Your task to perform on an android device: Add "apple airpods pro" to the cart on costco Image 0: 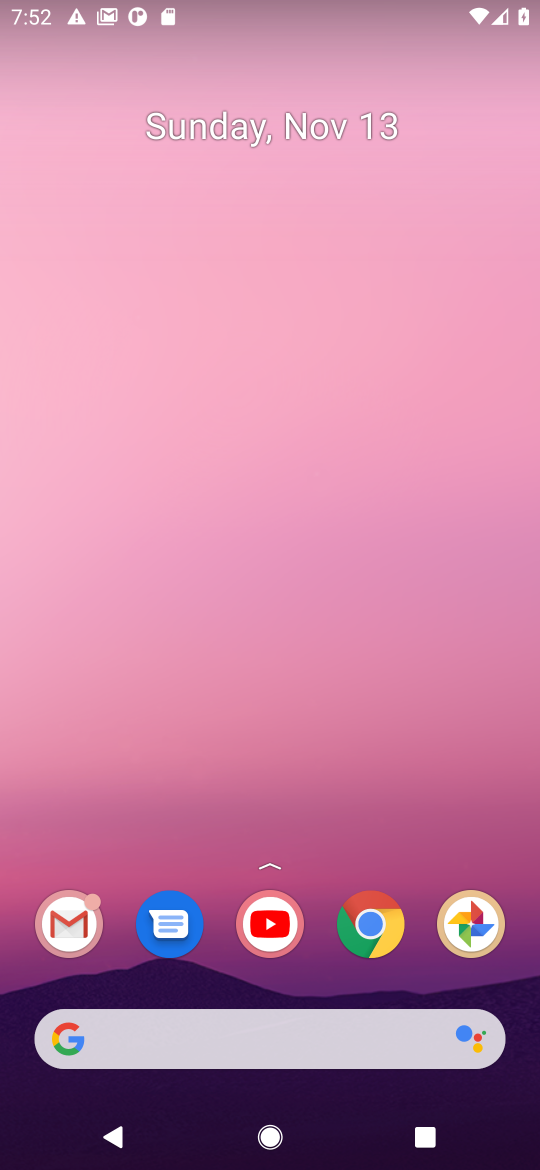
Step 0: click (384, 943)
Your task to perform on an android device: Add "apple airpods pro" to the cart on costco Image 1: 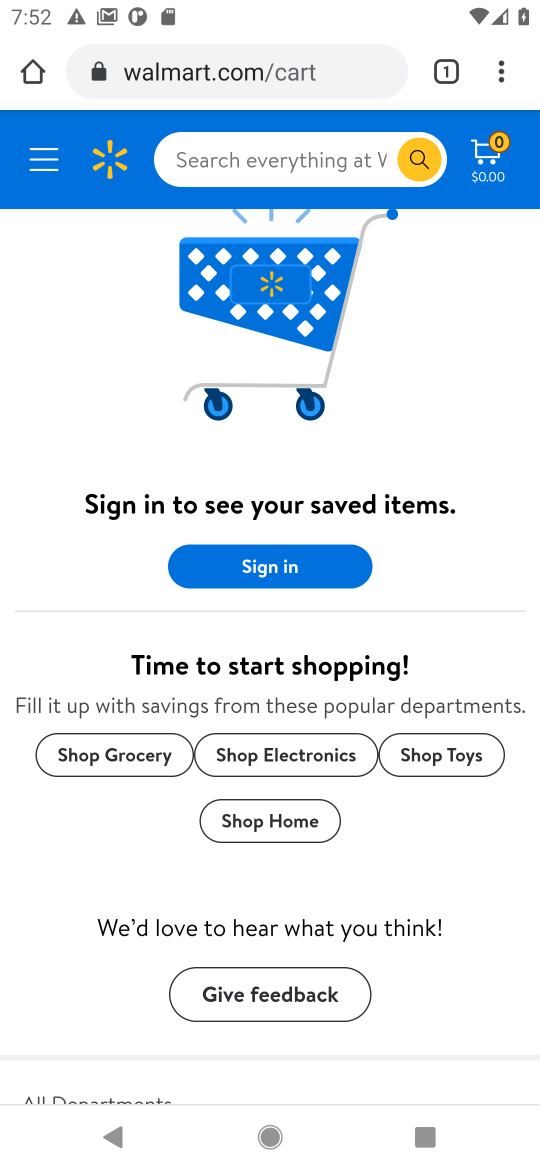
Step 1: click (288, 73)
Your task to perform on an android device: Add "apple airpods pro" to the cart on costco Image 2: 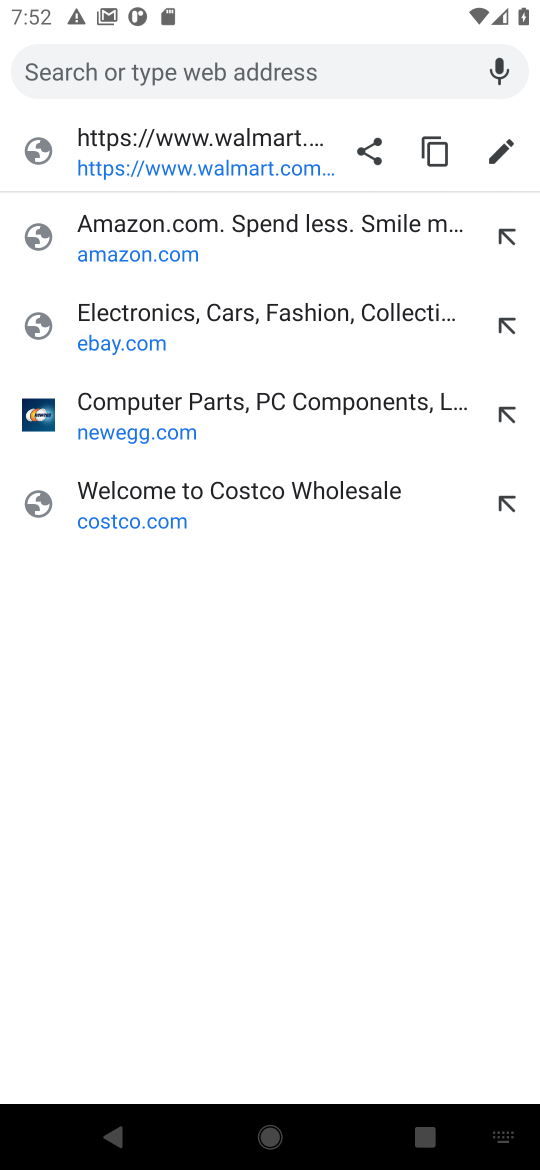
Step 2: click (128, 522)
Your task to perform on an android device: Add "apple airpods pro" to the cart on costco Image 3: 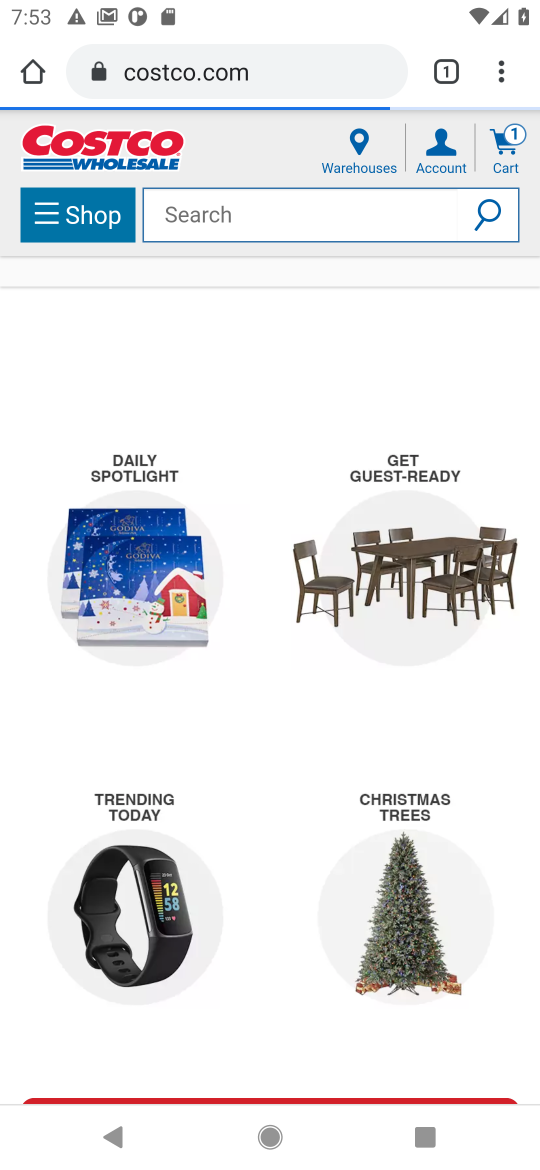
Step 3: click (236, 217)
Your task to perform on an android device: Add "apple airpods pro" to the cart on costco Image 4: 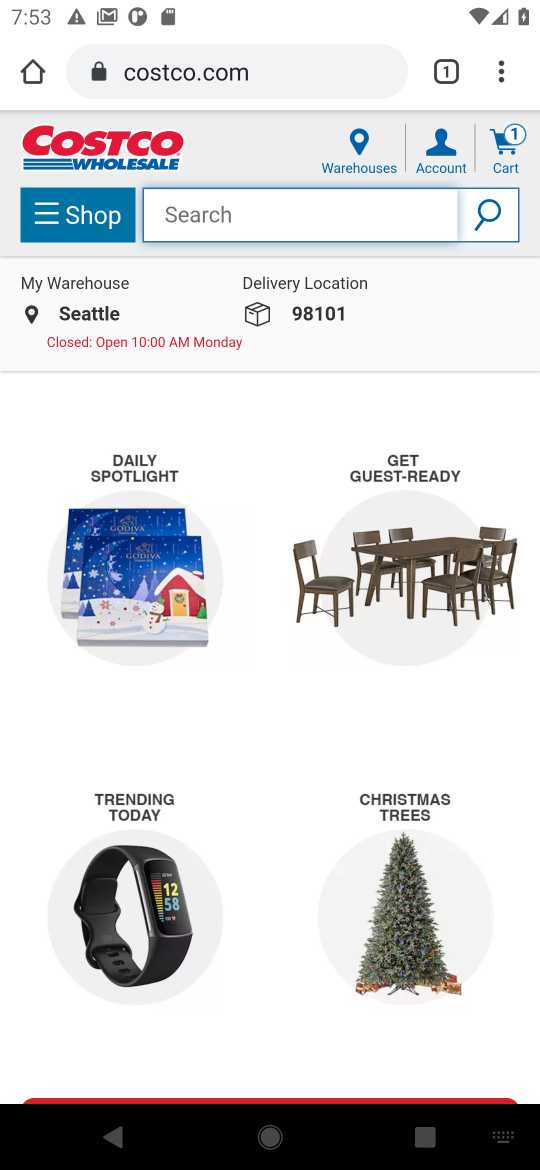
Step 4: type "apple airpods pro"
Your task to perform on an android device: Add "apple airpods pro" to the cart on costco Image 5: 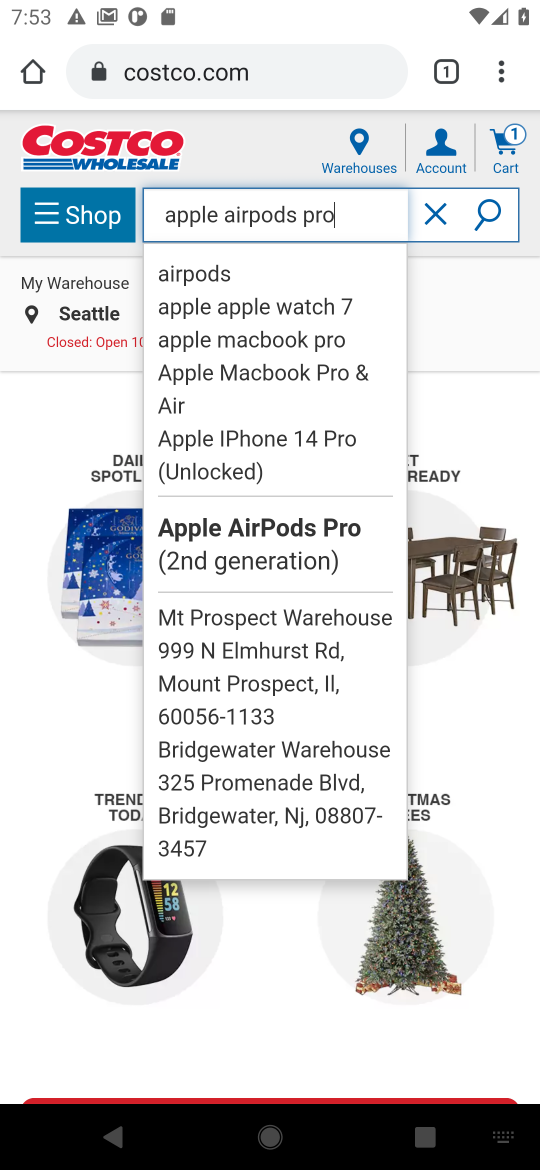
Step 5: click (493, 215)
Your task to perform on an android device: Add "apple airpods pro" to the cart on costco Image 6: 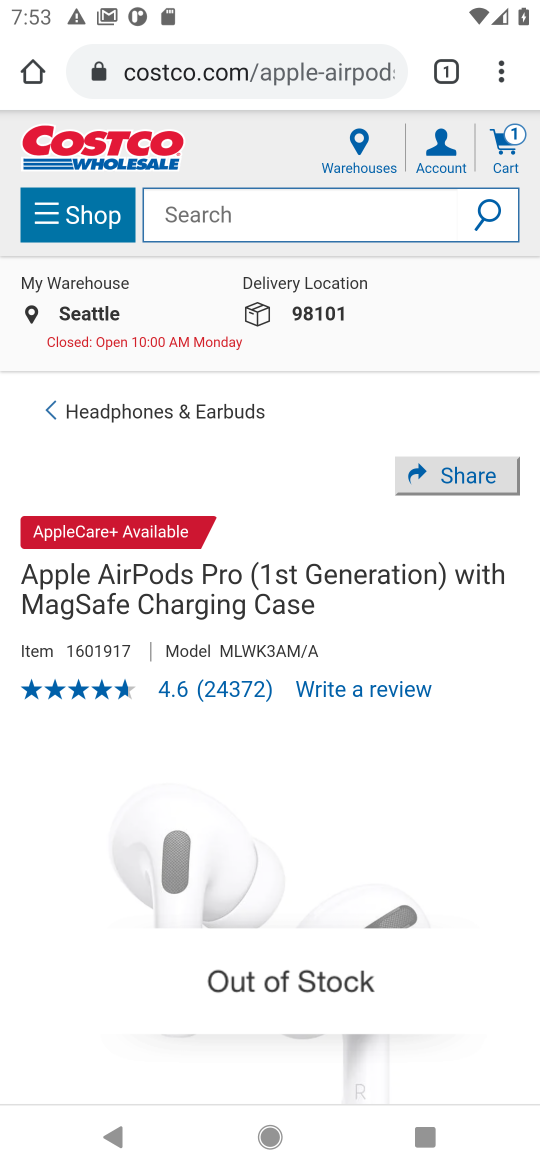
Step 6: drag from (73, 994) to (121, 639)
Your task to perform on an android device: Add "apple airpods pro" to the cart on costco Image 7: 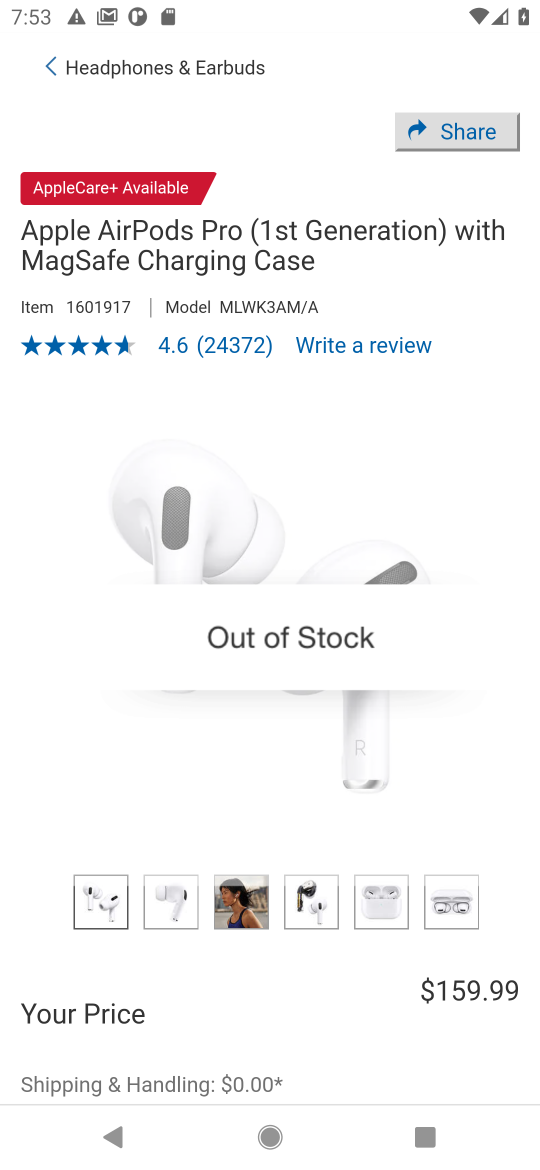
Step 7: drag from (263, 1033) to (376, 360)
Your task to perform on an android device: Add "apple airpods pro" to the cart on costco Image 8: 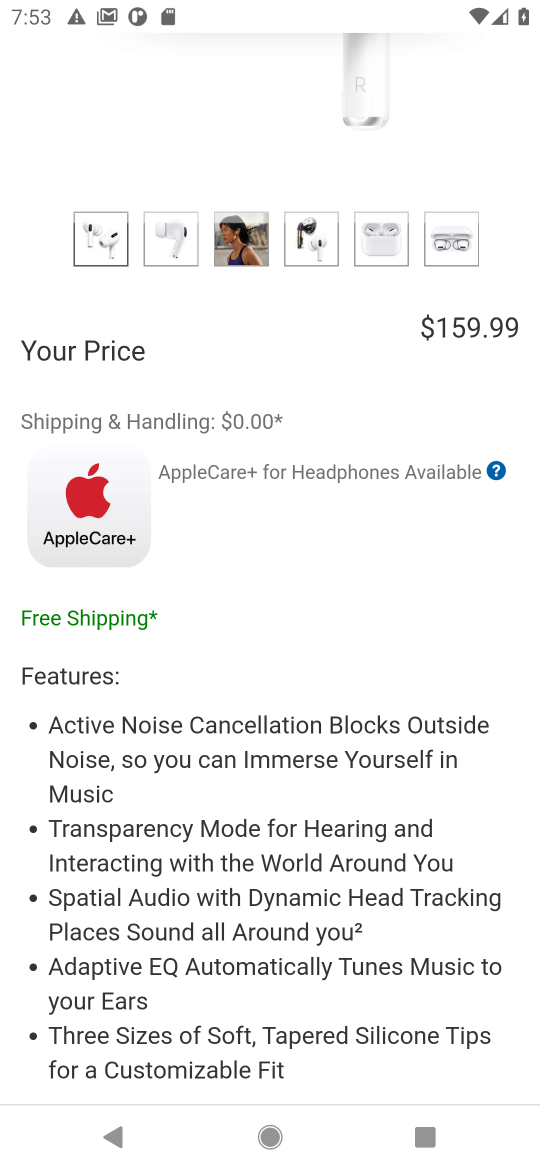
Step 8: drag from (316, 877) to (376, 372)
Your task to perform on an android device: Add "apple airpods pro" to the cart on costco Image 9: 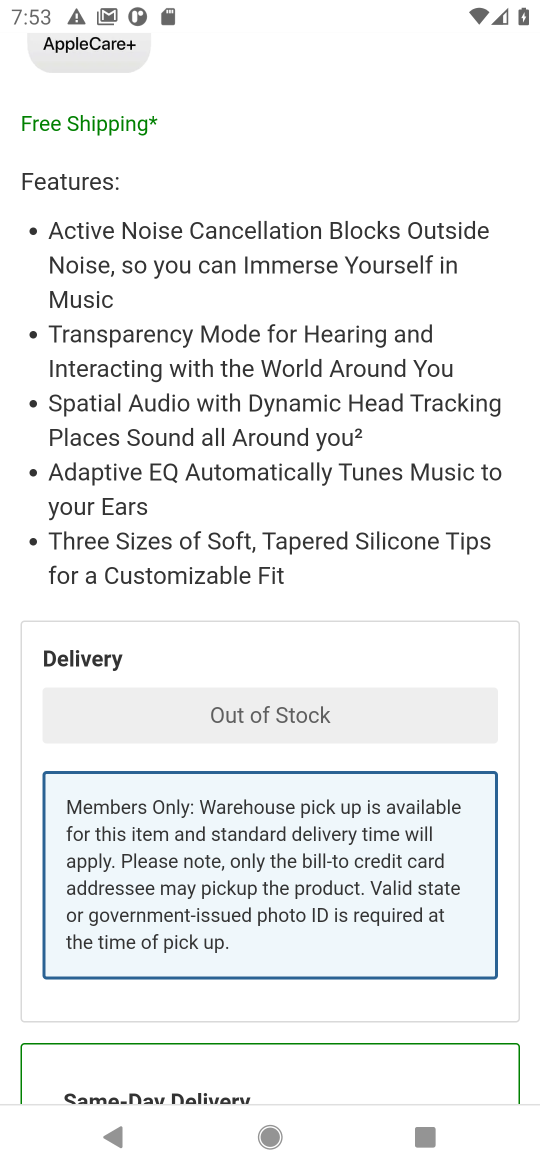
Step 9: drag from (452, 820) to (475, 344)
Your task to perform on an android device: Add "apple airpods pro" to the cart on costco Image 10: 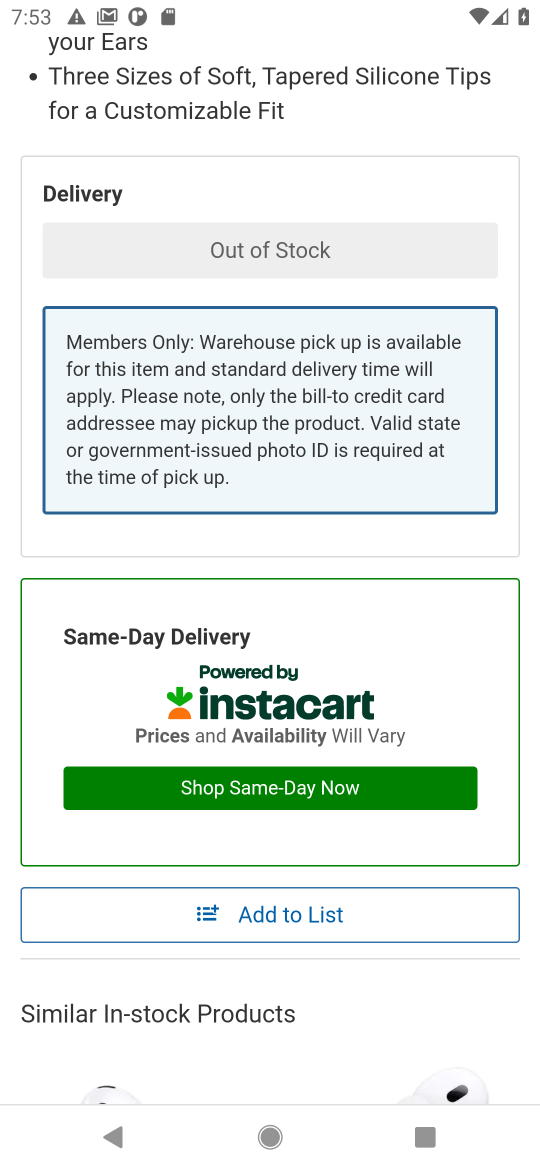
Step 10: drag from (388, 1008) to (474, 564)
Your task to perform on an android device: Add "apple airpods pro" to the cart on costco Image 11: 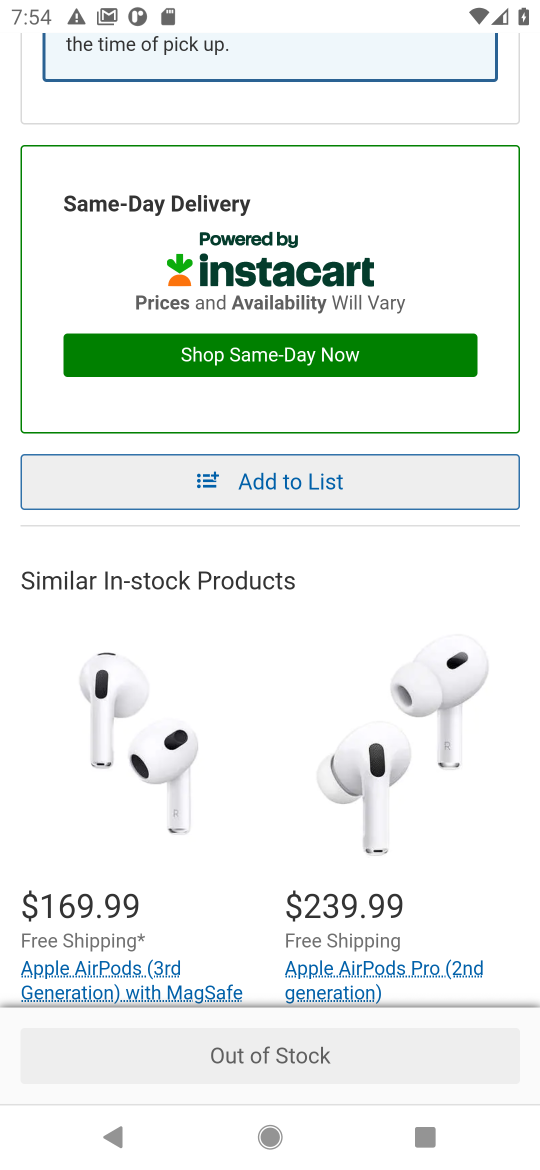
Step 11: drag from (234, 914) to (272, 665)
Your task to perform on an android device: Add "apple airpods pro" to the cart on costco Image 12: 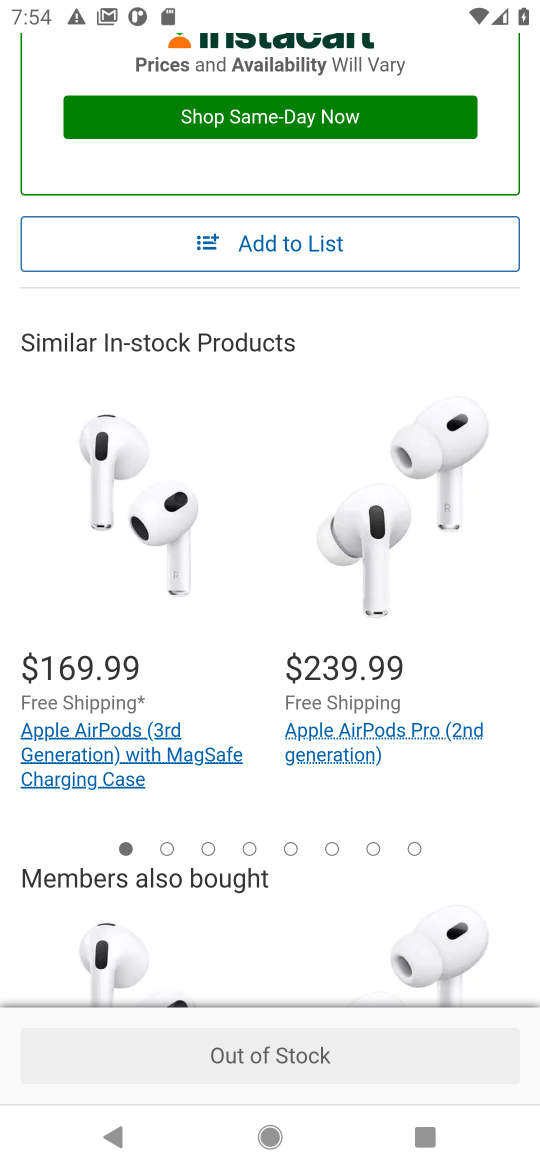
Step 12: click (375, 695)
Your task to perform on an android device: Add "apple airpods pro" to the cart on costco Image 13: 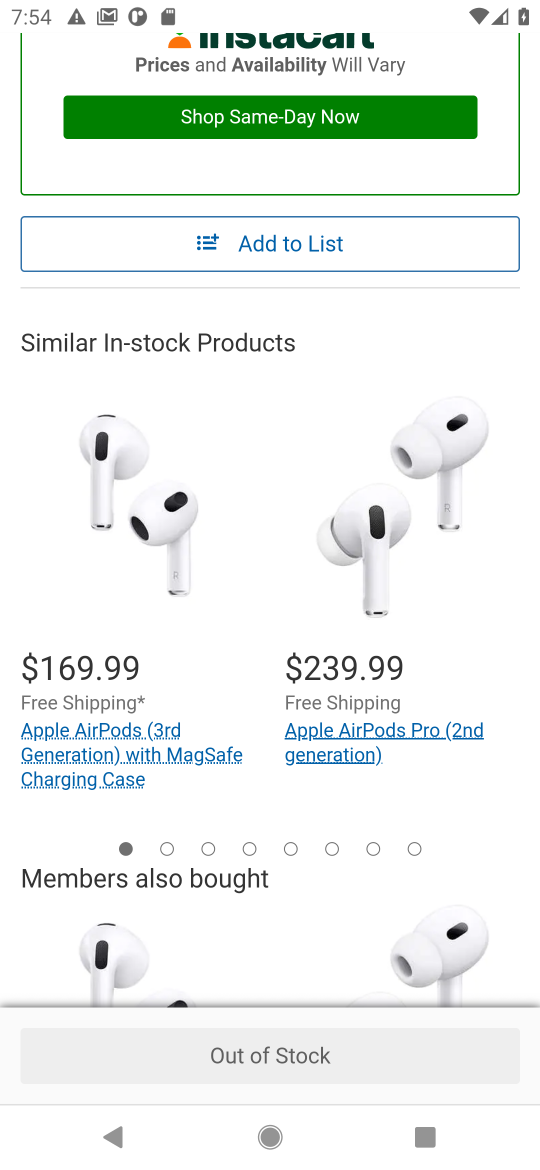
Step 13: click (372, 708)
Your task to perform on an android device: Add "apple airpods pro" to the cart on costco Image 14: 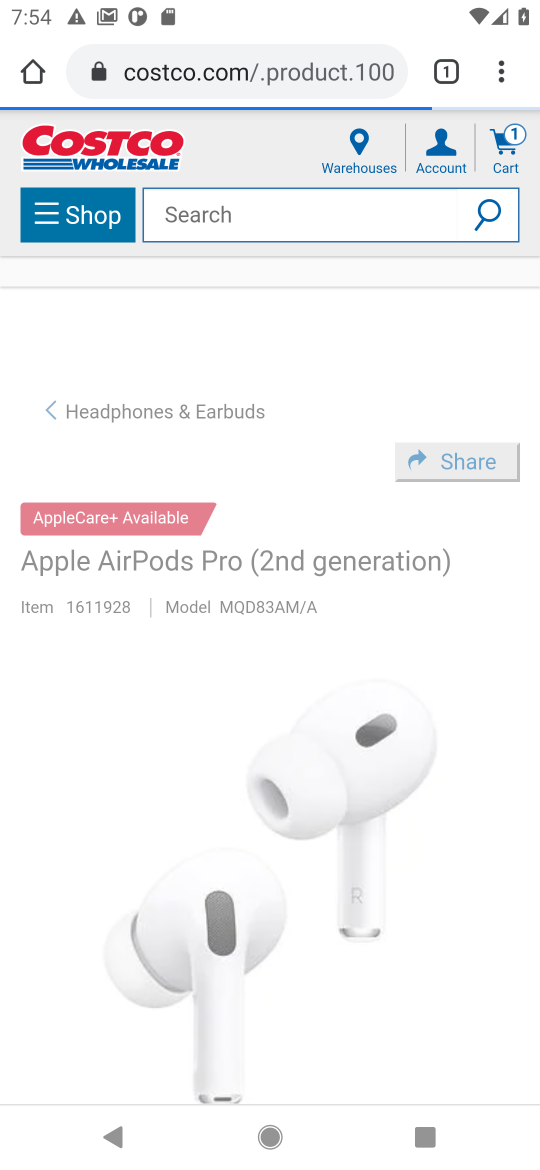
Step 14: drag from (465, 896) to (467, 468)
Your task to perform on an android device: Add "apple airpods pro" to the cart on costco Image 15: 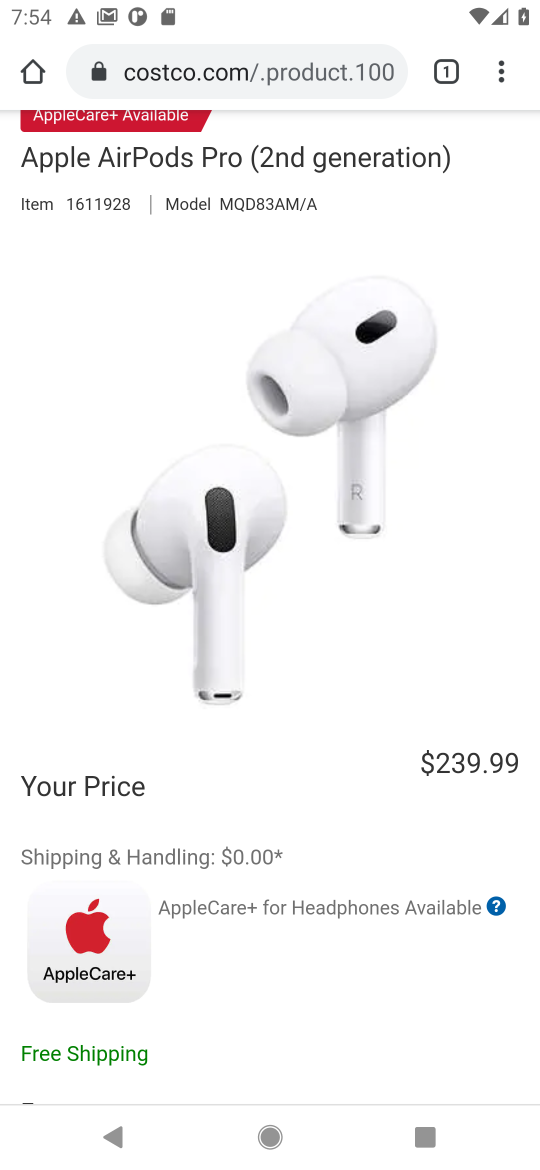
Step 15: drag from (363, 899) to (359, 538)
Your task to perform on an android device: Add "apple airpods pro" to the cart on costco Image 16: 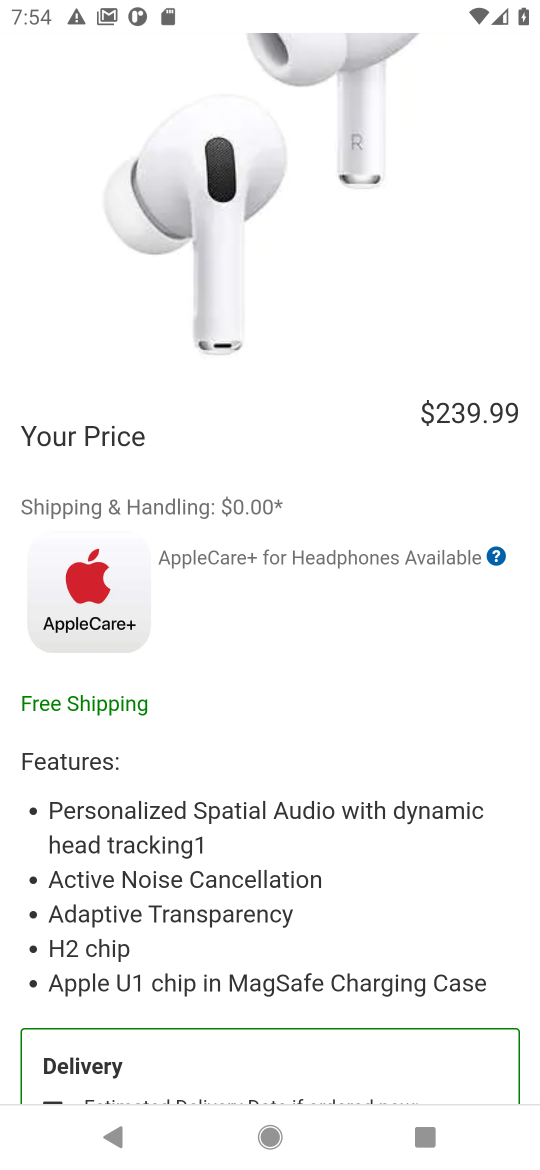
Step 16: drag from (389, 901) to (442, 469)
Your task to perform on an android device: Add "apple airpods pro" to the cart on costco Image 17: 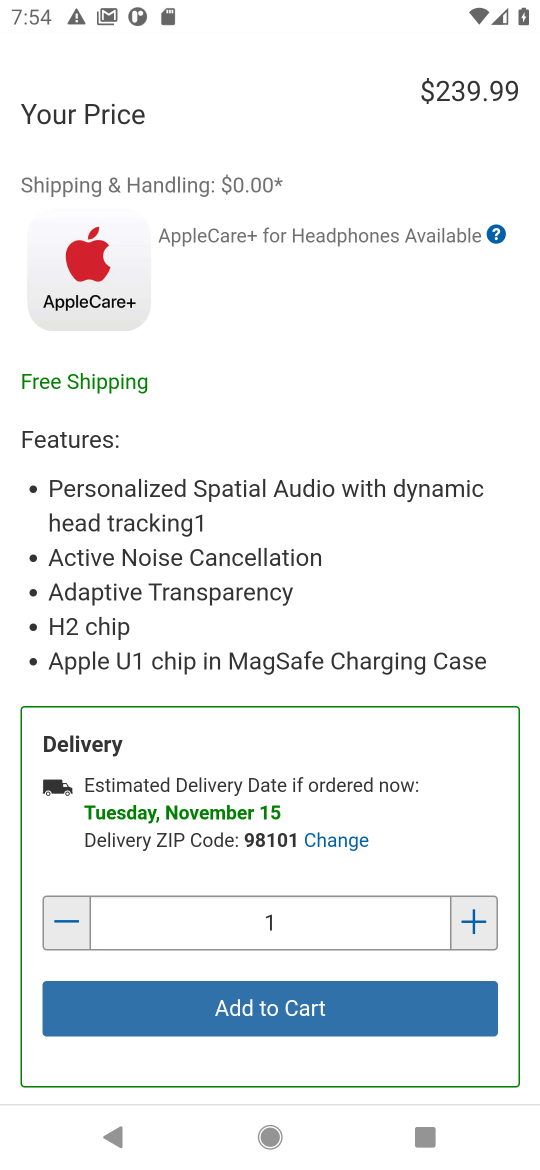
Step 17: click (286, 1021)
Your task to perform on an android device: Add "apple airpods pro" to the cart on costco Image 18: 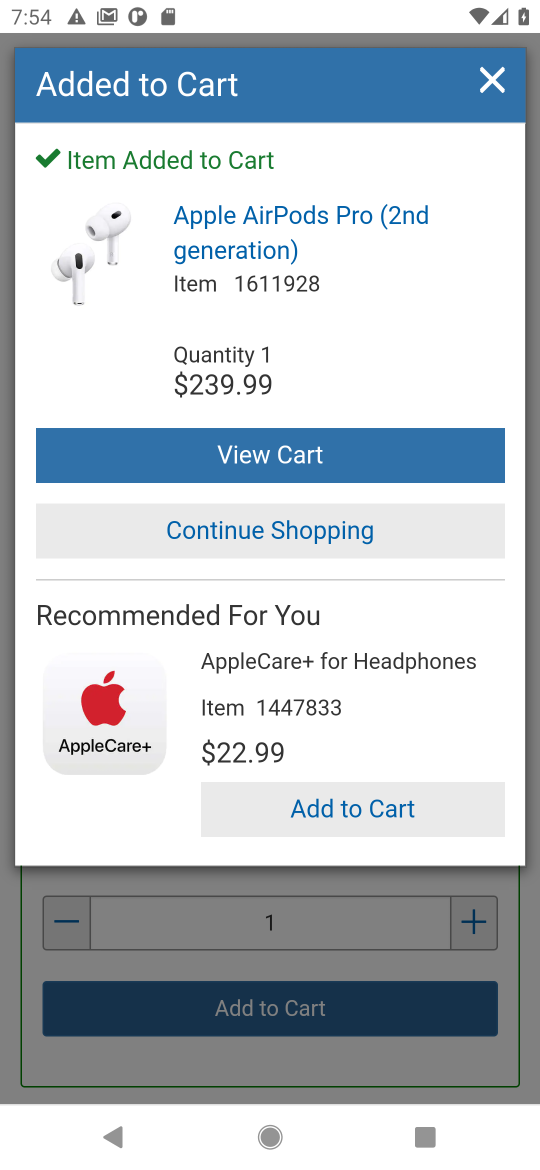
Step 18: task complete